Your task to perform on an android device: Open notification settings Image 0: 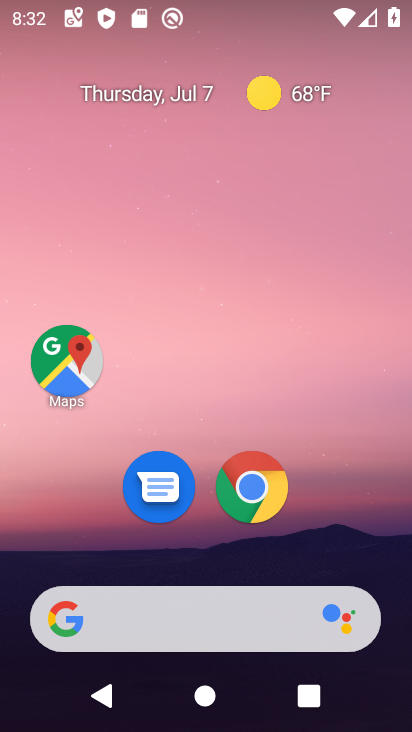
Step 0: drag from (219, 587) to (154, 30)
Your task to perform on an android device: Open notification settings Image 1: 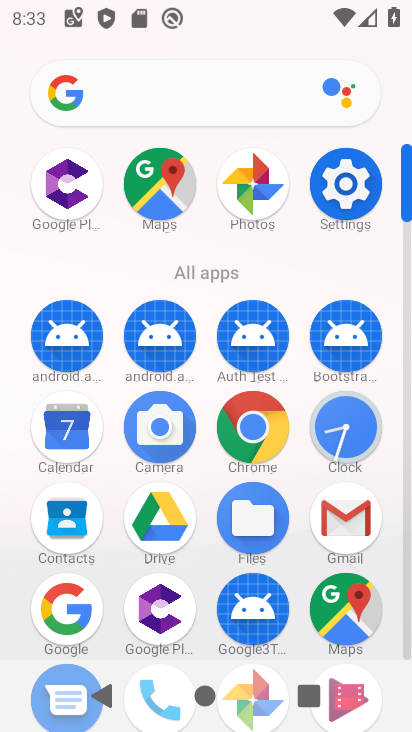
Step 1: click (337, 165)
Your task to perform on an android device: Open notification settings Image 2: 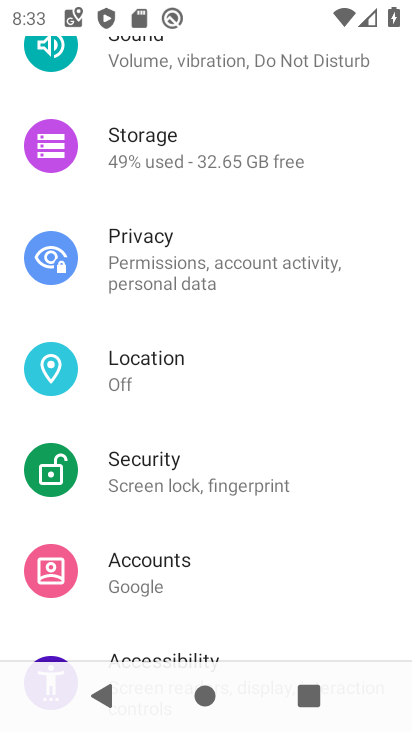
Step 2: drag from (172, 236) to (163, 624)
Your task to perform on an android device: Open notification settings Image 3: 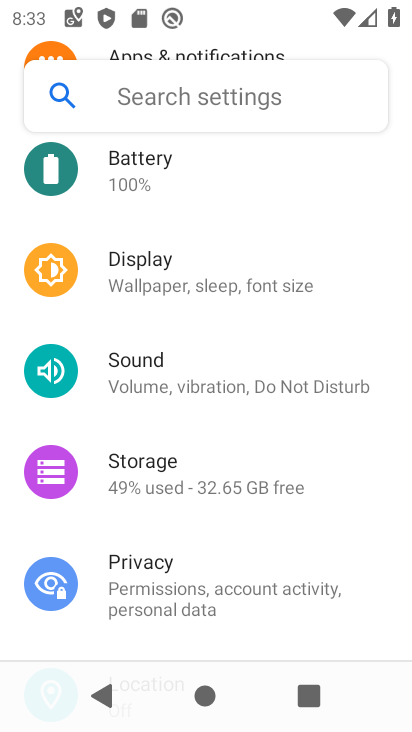
Step 3: drag from (166, 207) to (165, 600)
Your task to perform on an android device: Open notification settings Image 4: 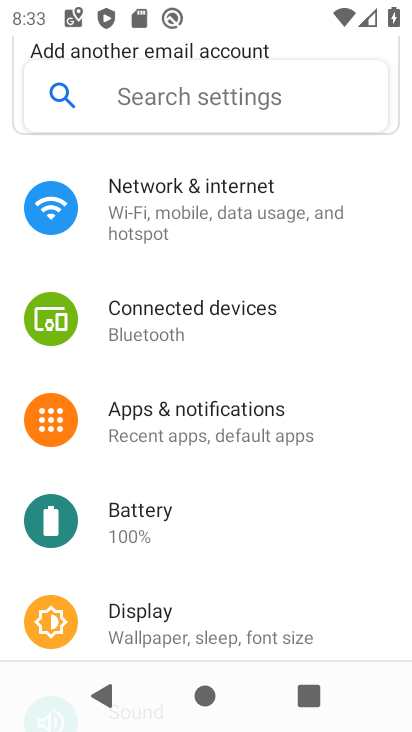
Step 4: click (155, 403)
Your task to perform on an android device: Open notification settings Image 5: 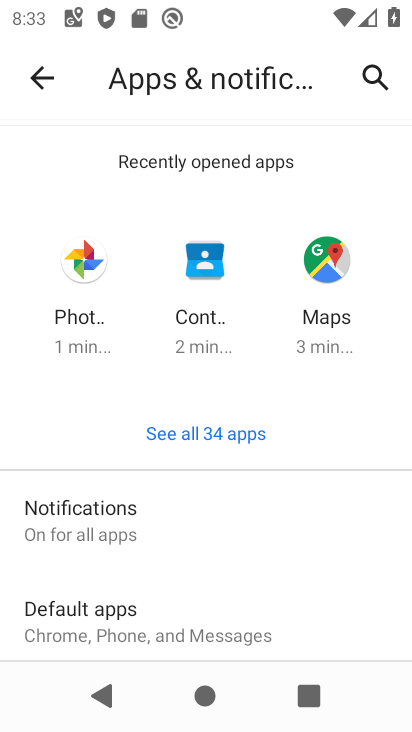
Step 5: click (135, 495)
Your task to perform on an android device: Open notification settings Image 6: 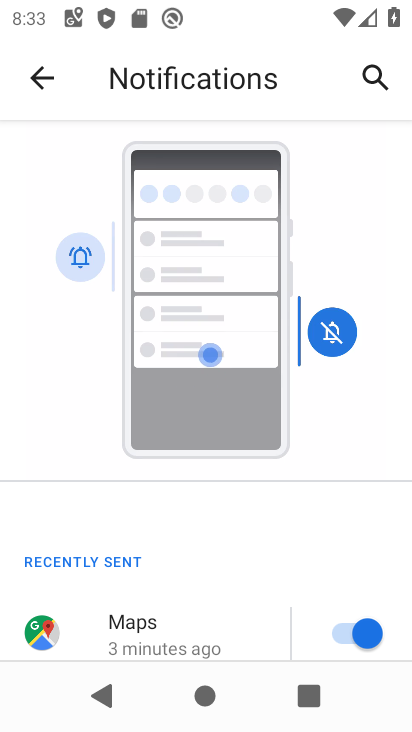
Step 6: task complete